Your task to perform on an android device: Search for coffee table on Crate & Barrel Image 0: 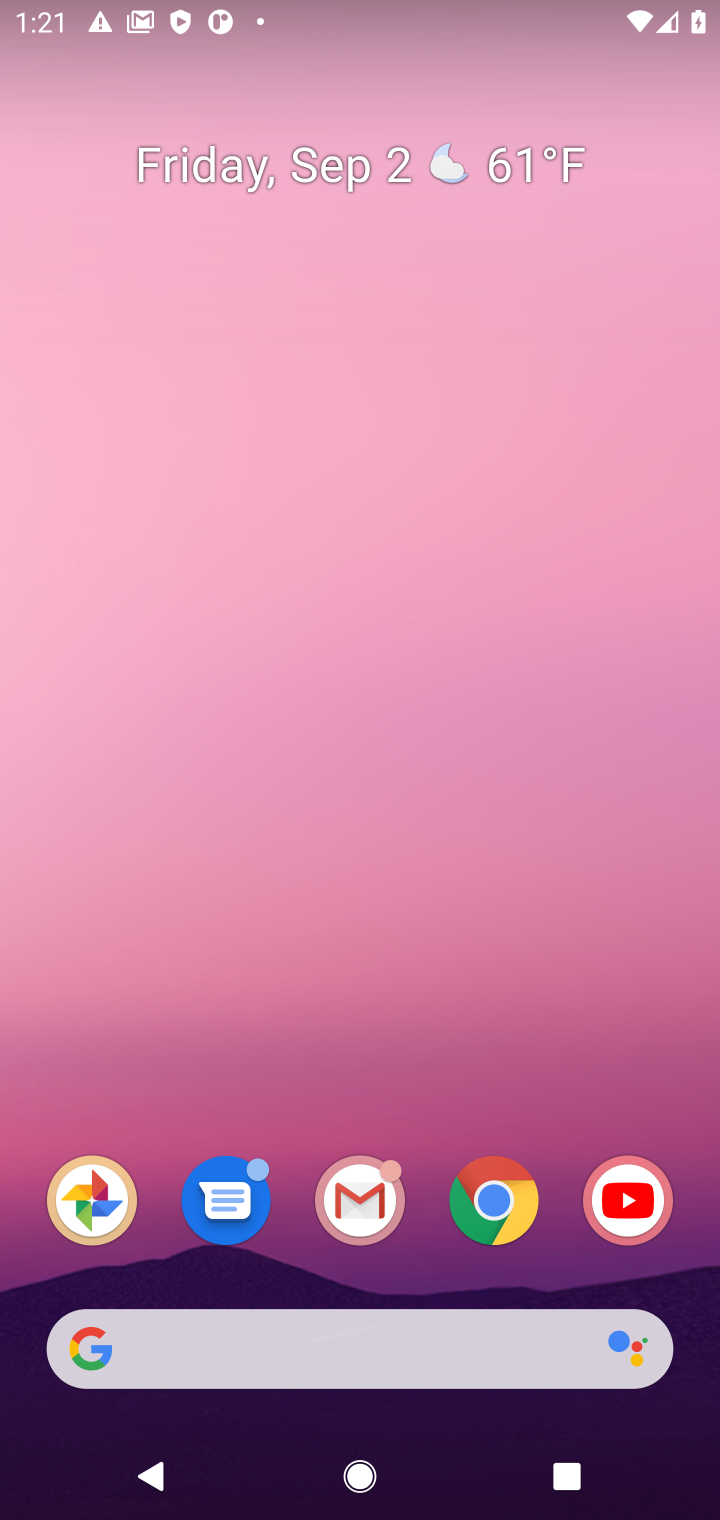
Step 0: click (489, 1179)
Your task to perform on an android device: Search for coffee table on Crate & Barrel Image 1: 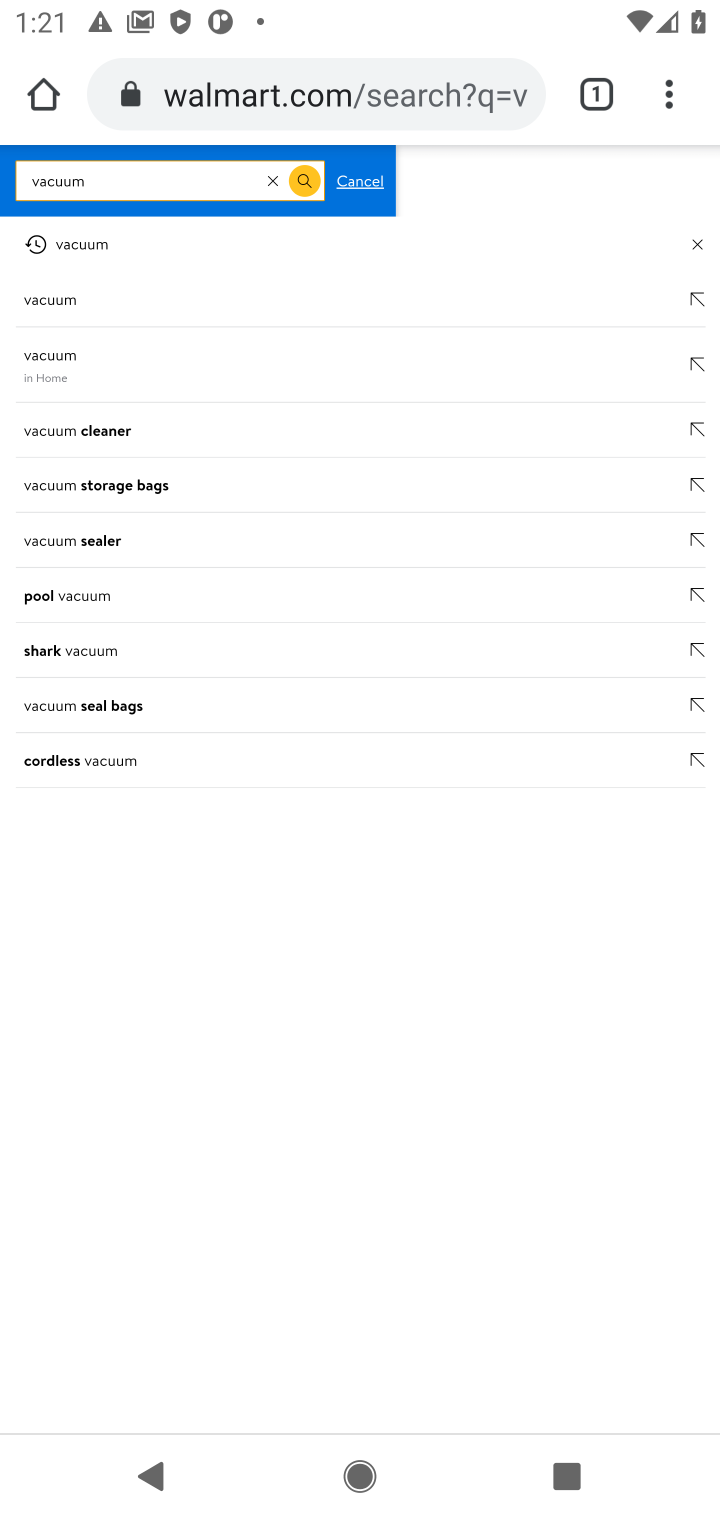
Step 1: click (420, 91)
Your task to perform on an android device: Search for coffee table on Crate & Barrel Image 2: 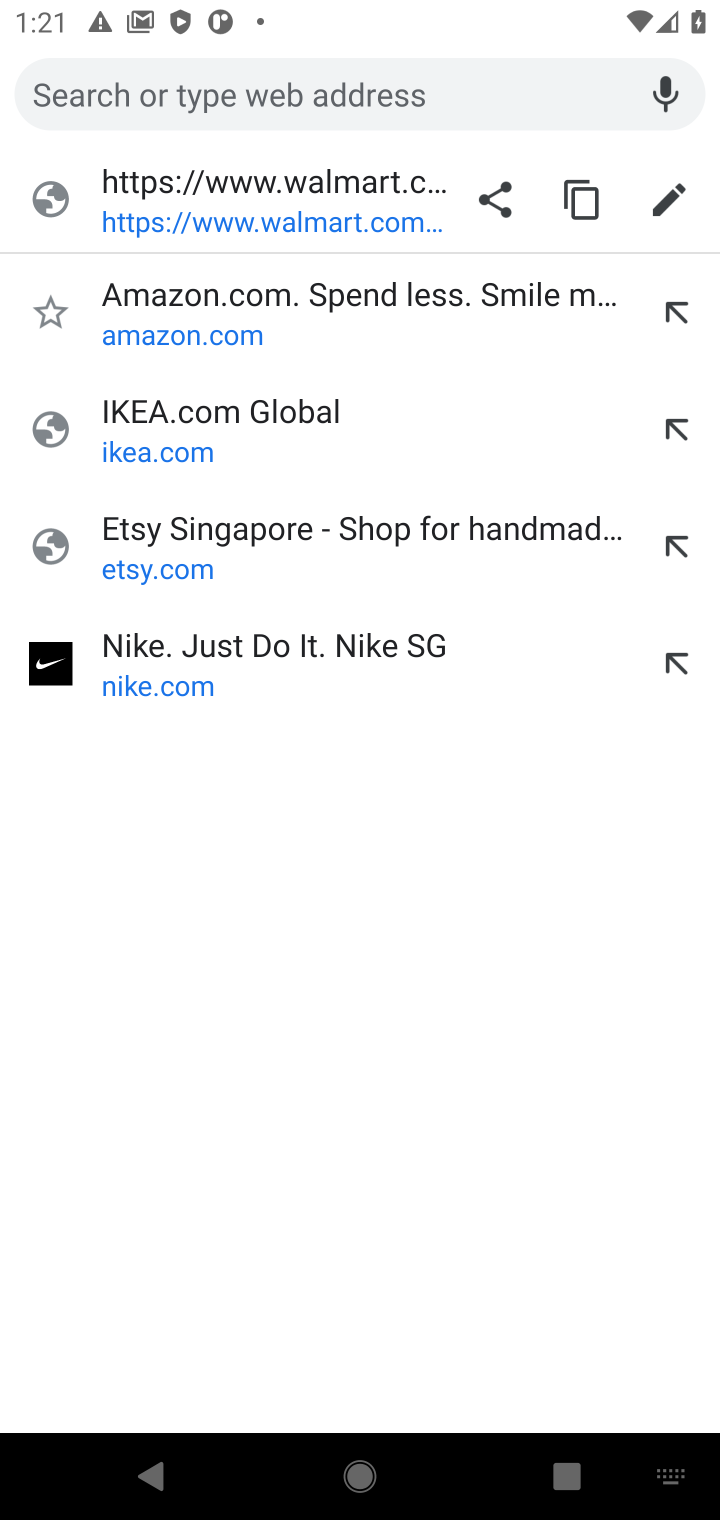
Step 2: type "Crate & Barrel"
Your task to perform on an android device: Search for coffee table on Crate & Barrel Image 3: 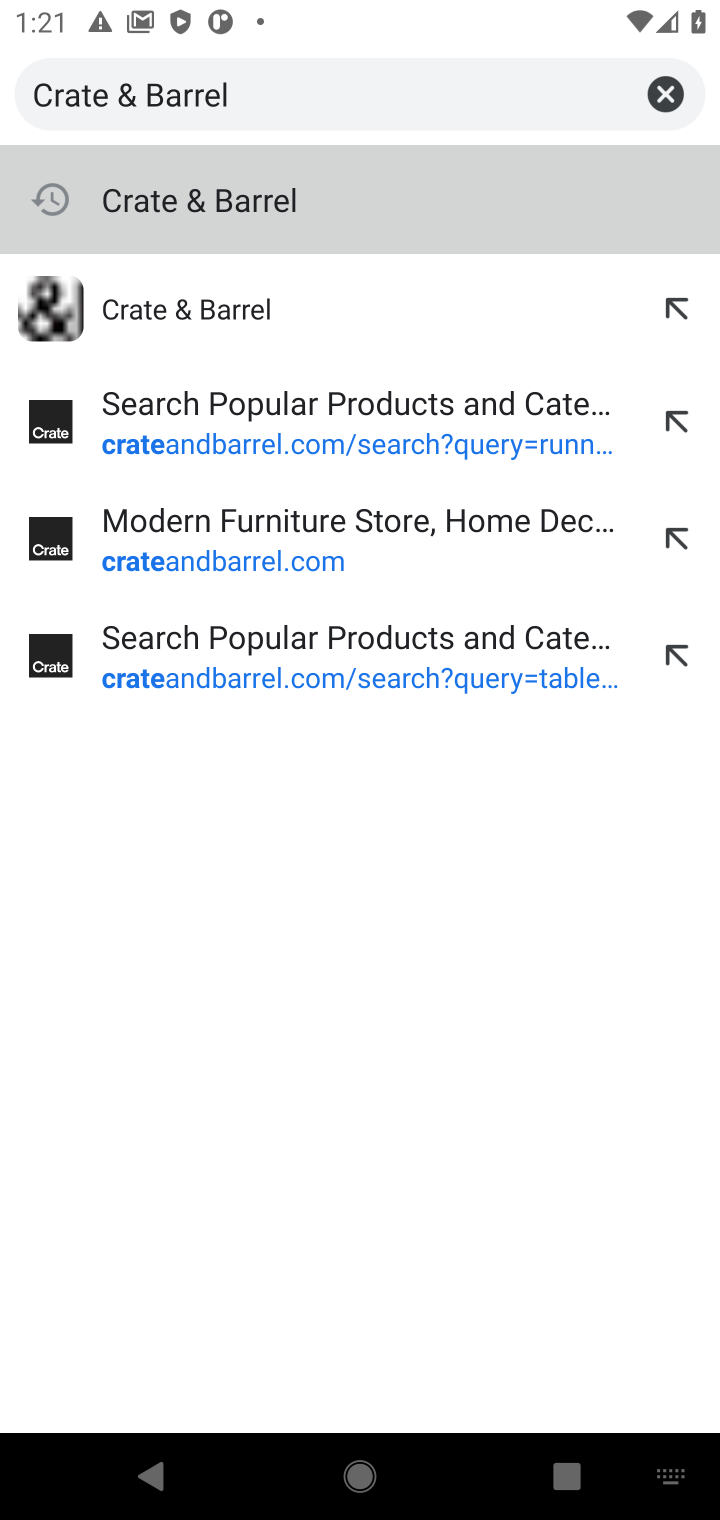
Step 3: press enter
Your task to perform on an android device: Search for coffee table on Crate & Barrel Image 4: 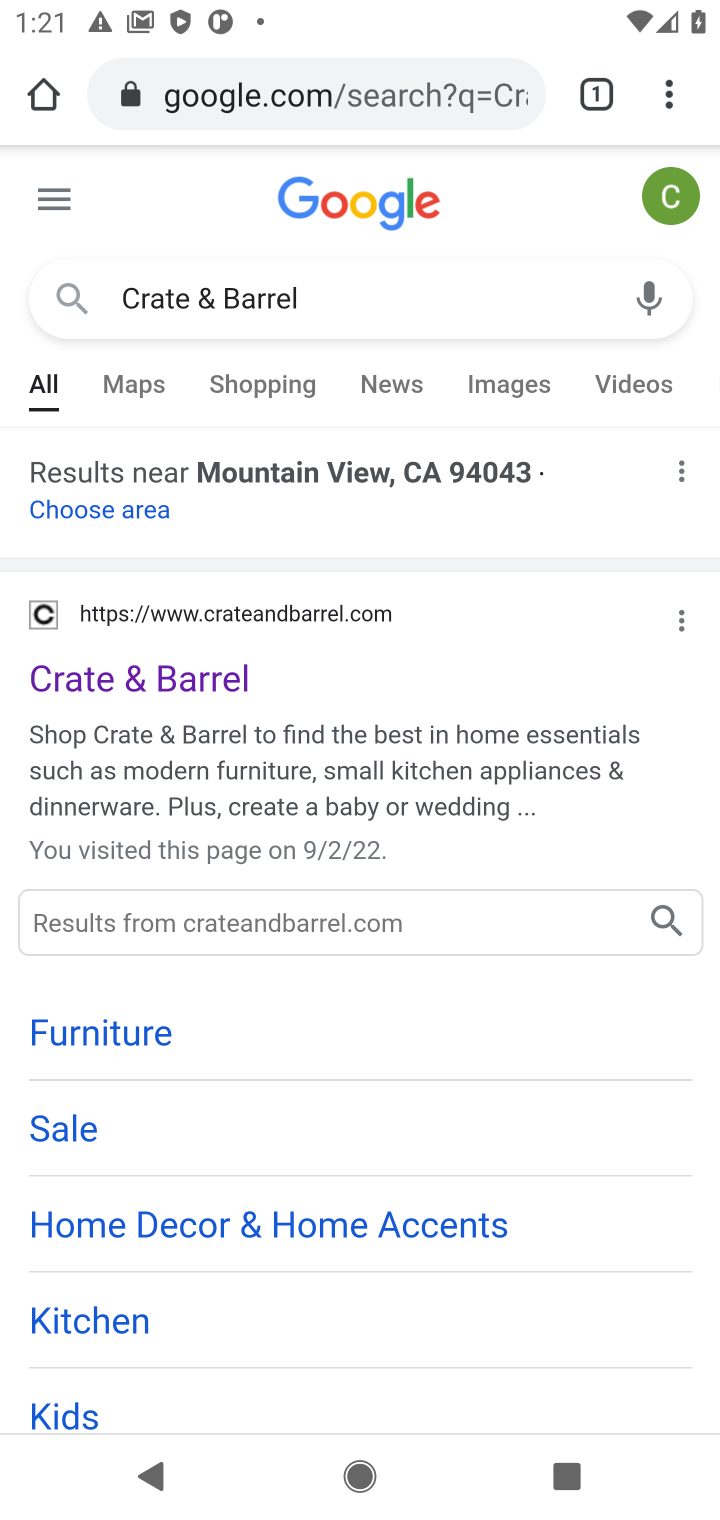
Step 4: click (164, 672)
Your task to perform on an android device: Search for coffee table on Crate & Barrel Image 5: 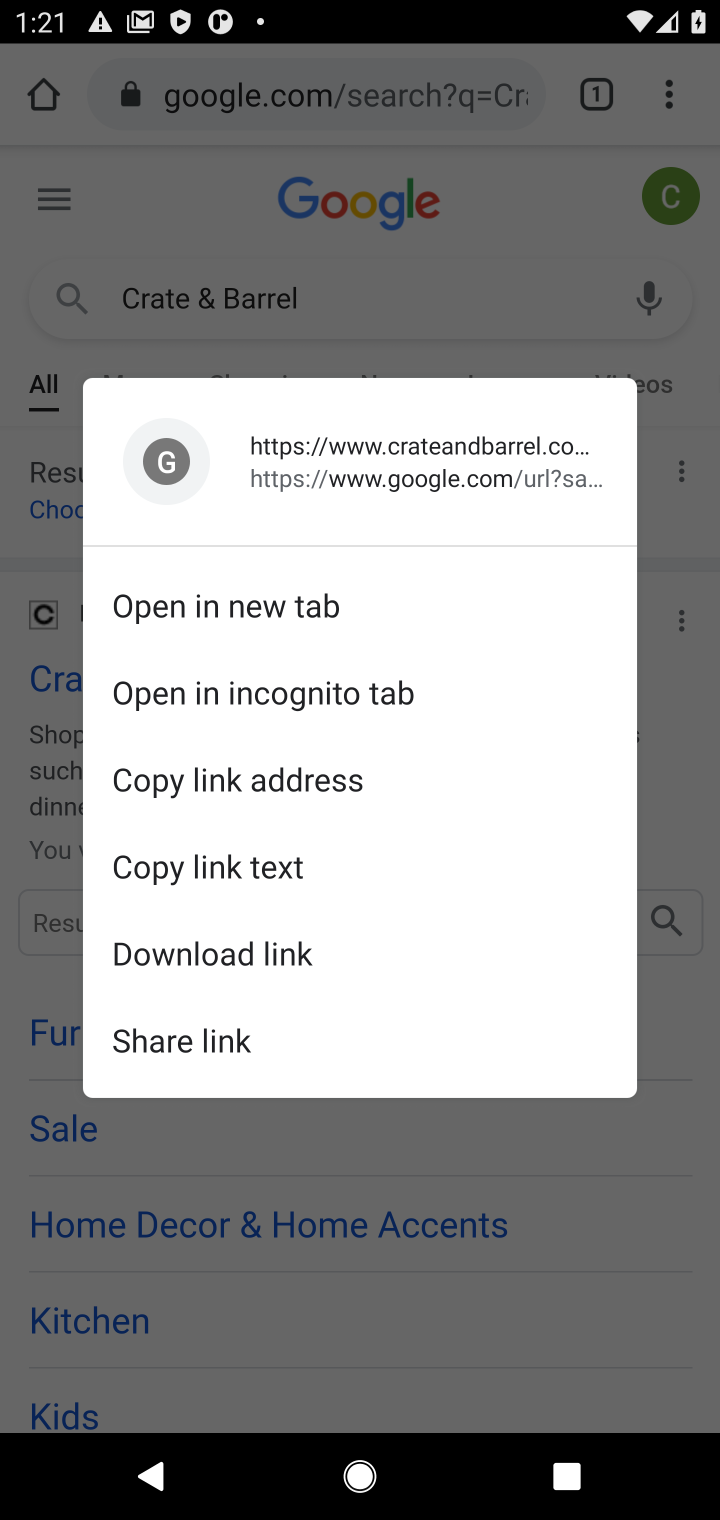
Step 5: click (657, 1220)
Your task to perform on an android device: Search for coffee table on Crate & Barrel Image 6: 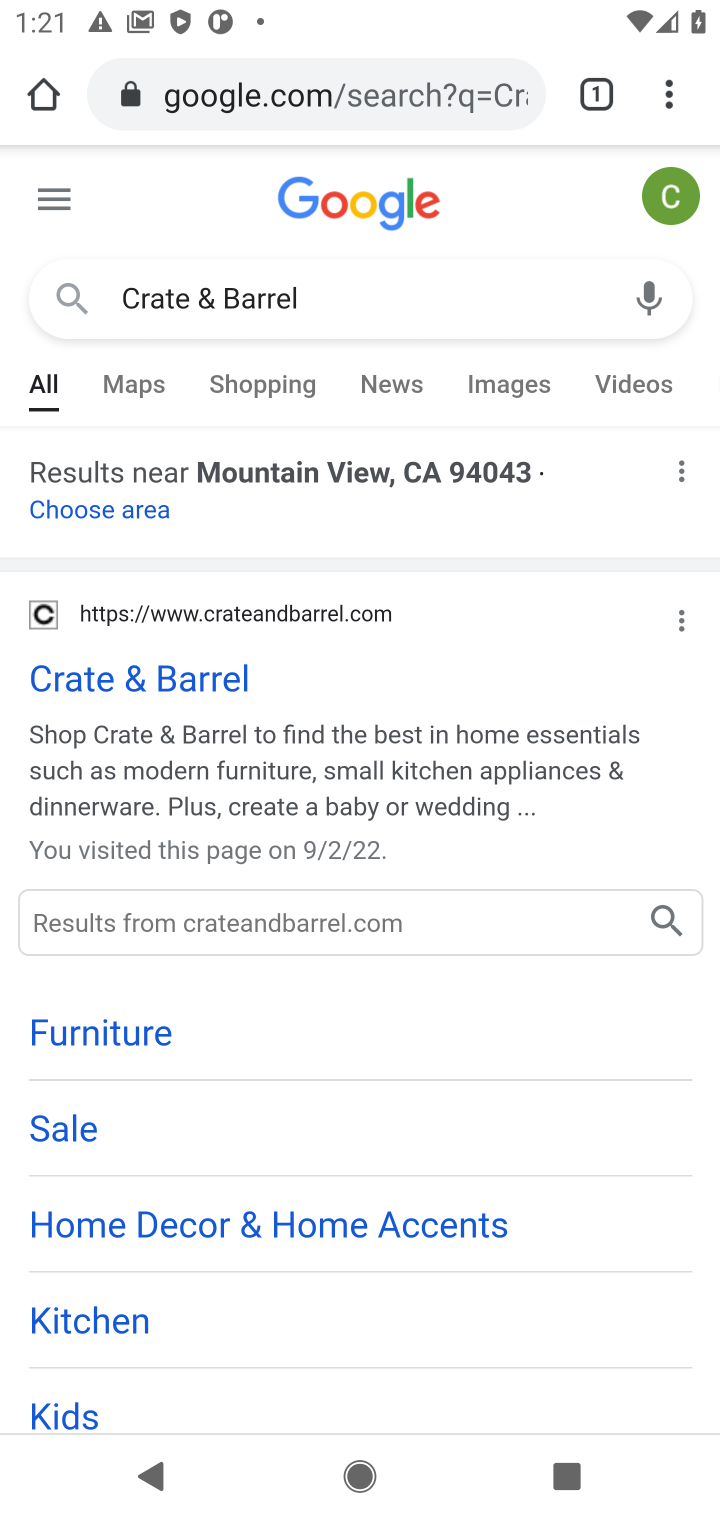
Step 6: click (117, 681)
Your task to perform on an android device: Search for coffee table on Crate & Barrel Image 7: 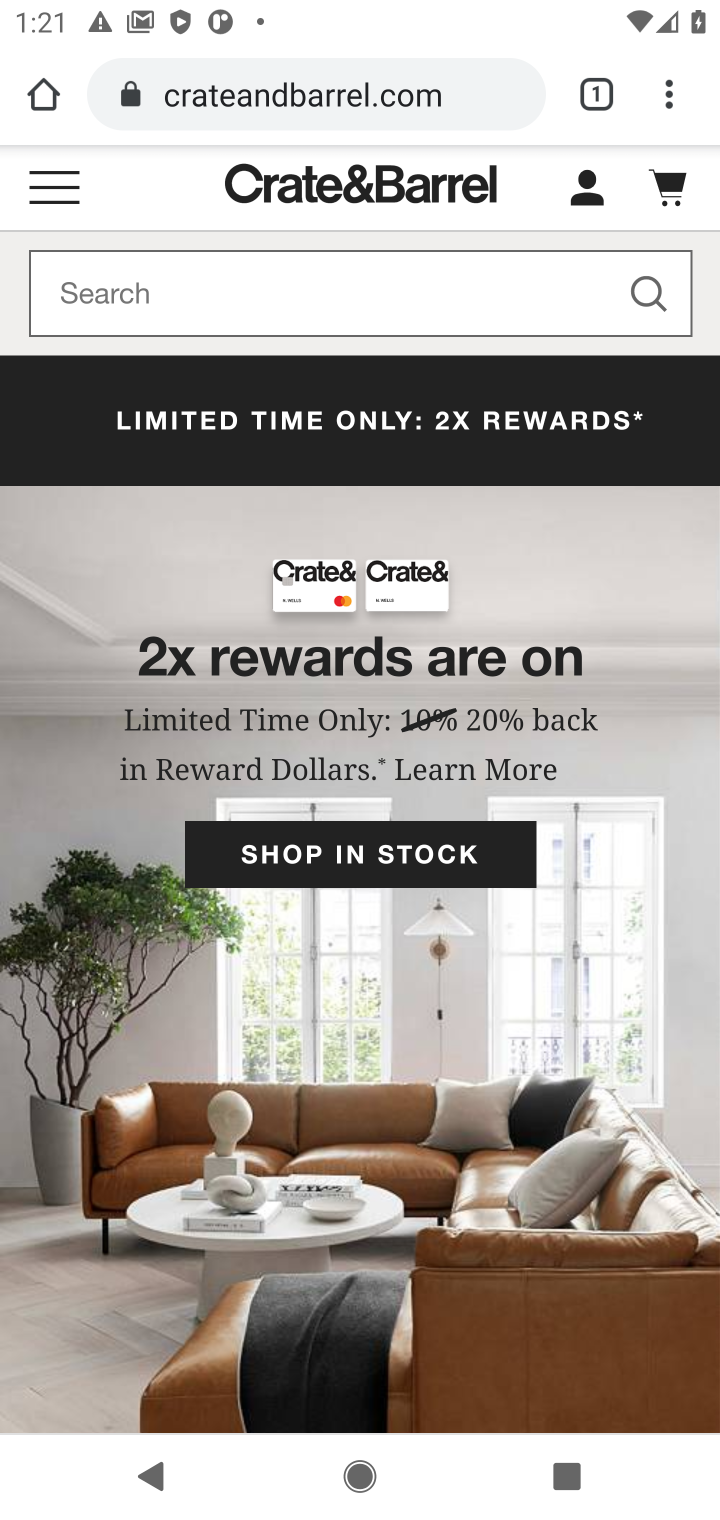
Step 7: click (332, 294)
Your task to perform on an android device: Search for coffee table on Crate & Barrel Image 8: 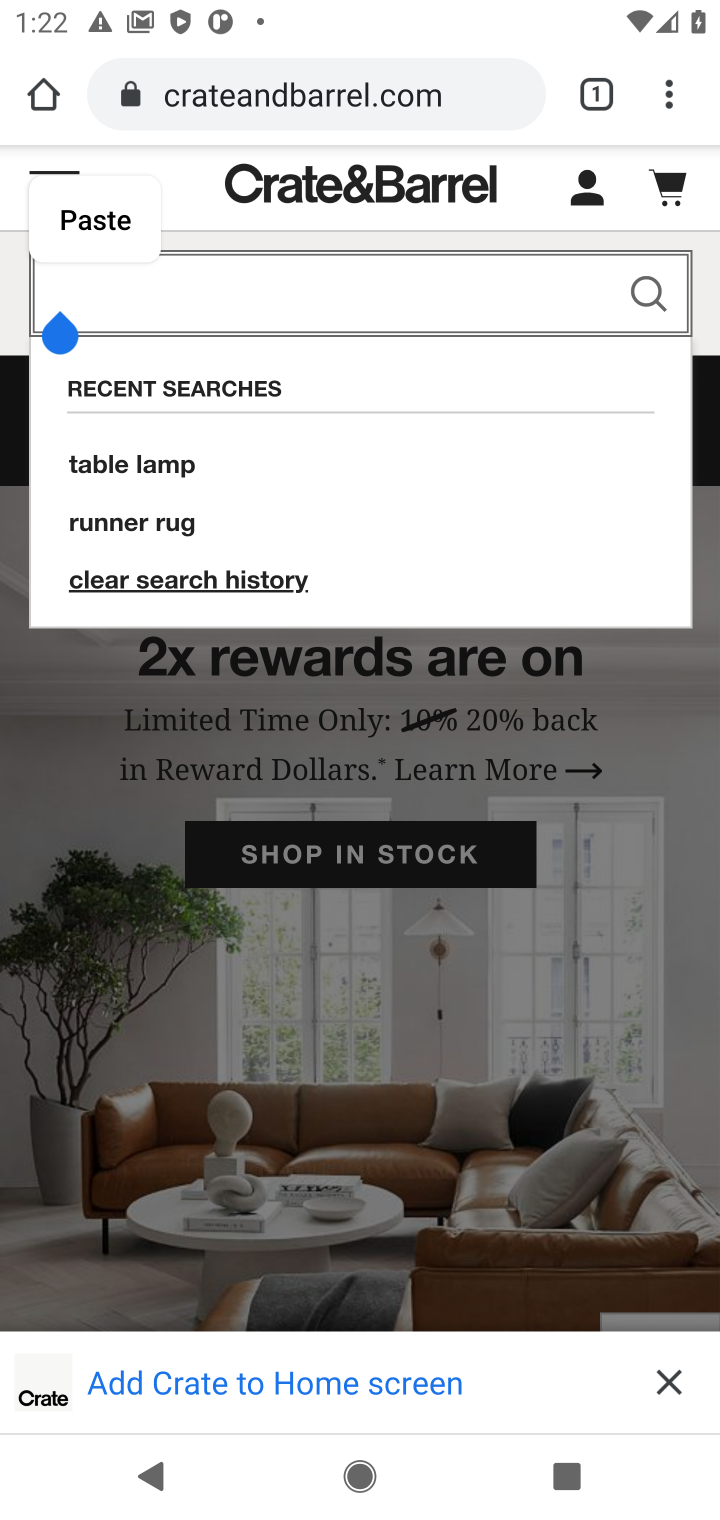
Step 8: press enter
Your task to perform on an android device: Search for coffee table on Crate & Barrel Image 9: 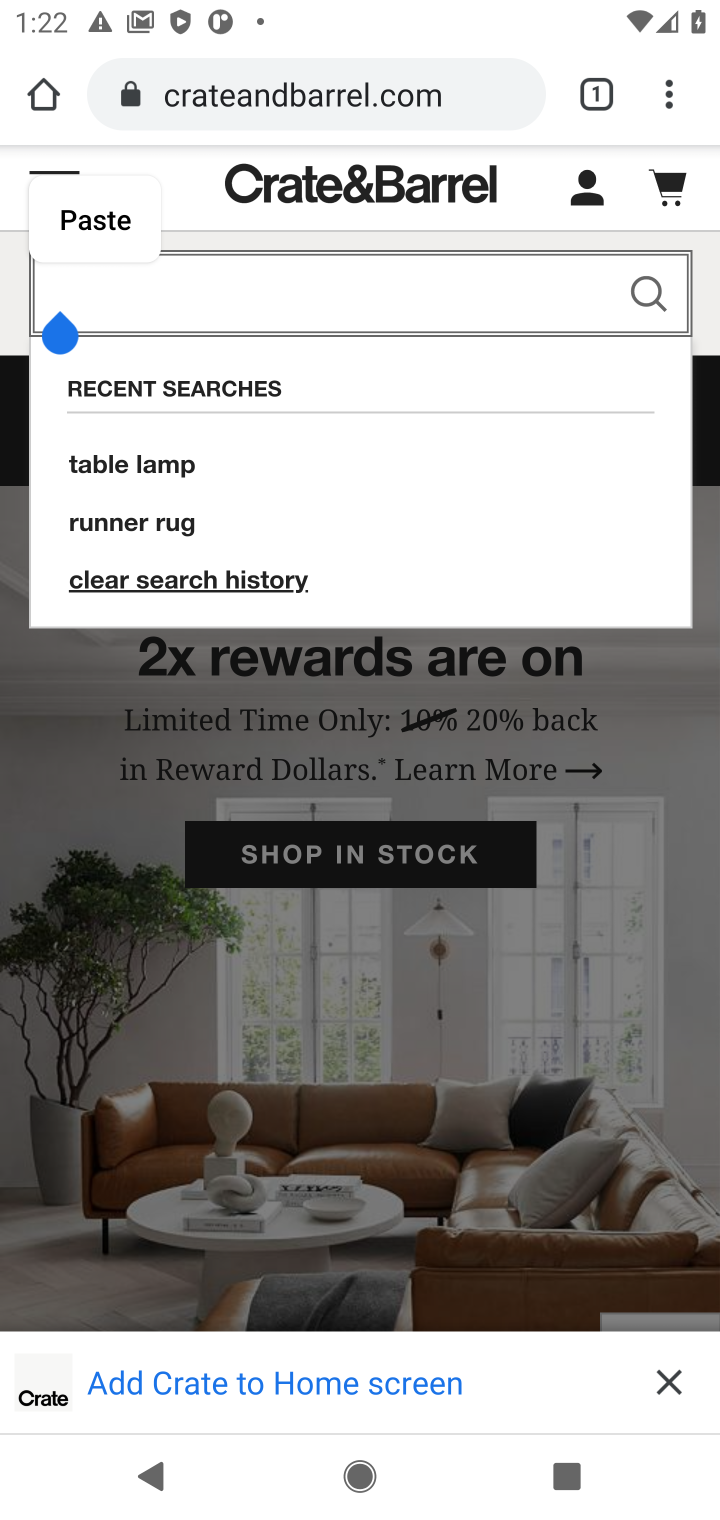
Step 9: type " coffee table"
Your task to perform on an android device: Search for coffee table on Crate & Barrel Image 10: 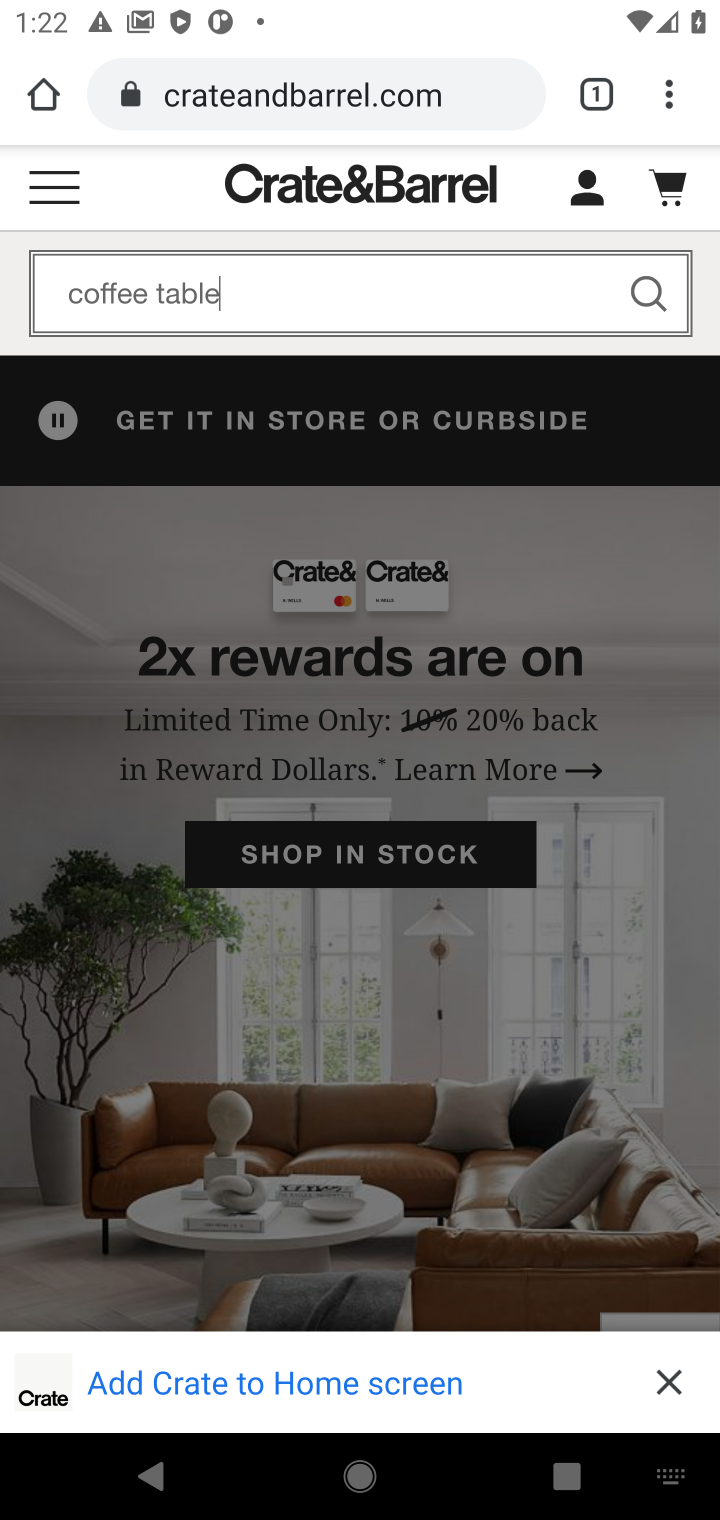
Step 10: click (643, 290)
Your task to perform on an android device: Search for coffee table on Crate & Barrel Image 11: 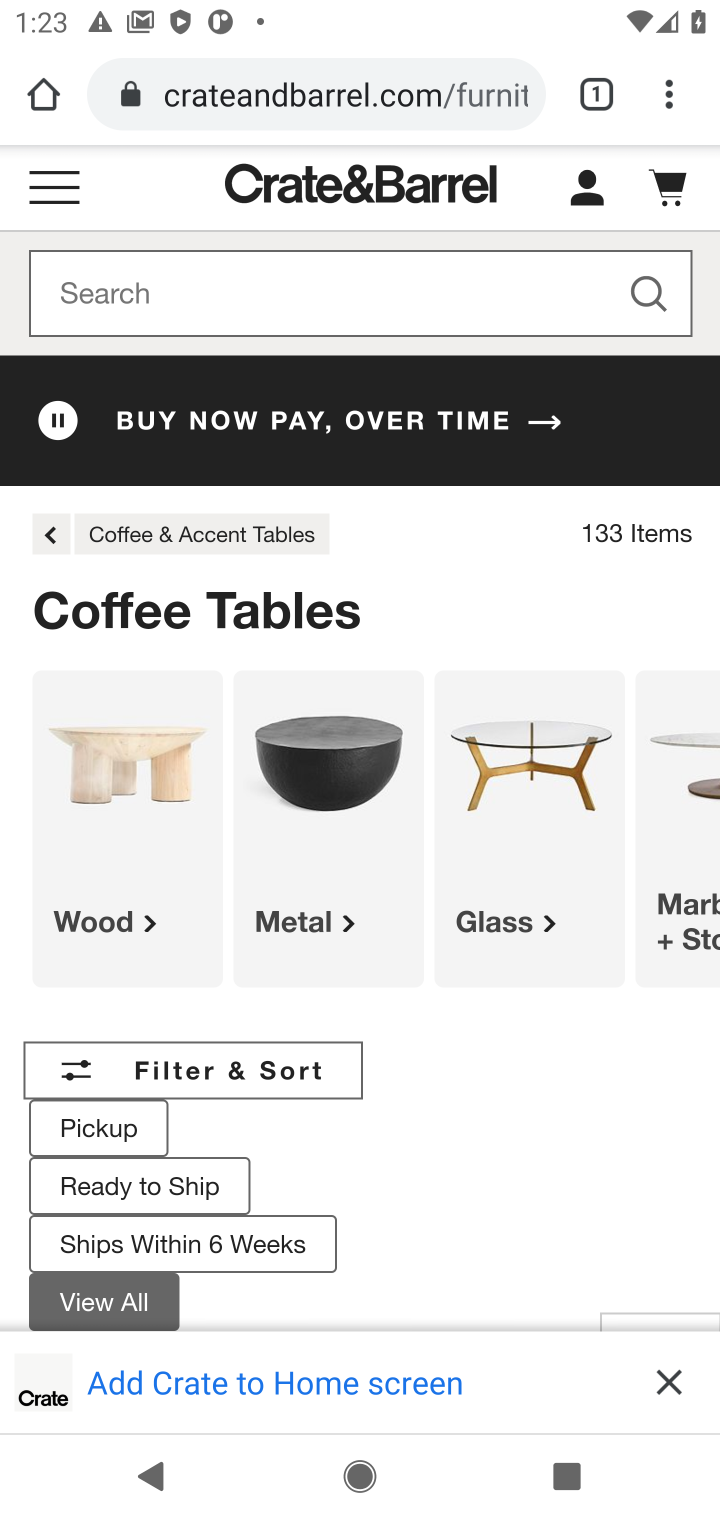
Step 11: task complete